Your task to perform on an android device: set default search engine in the chrome app Image 0: 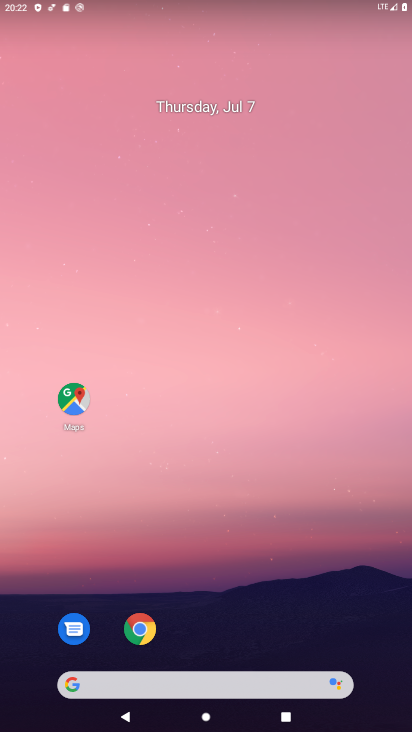
Step 0: drag from (191, 494) to (228, 1)
Your task to perform on an android device: set default search engine in the chrome app Image 1: 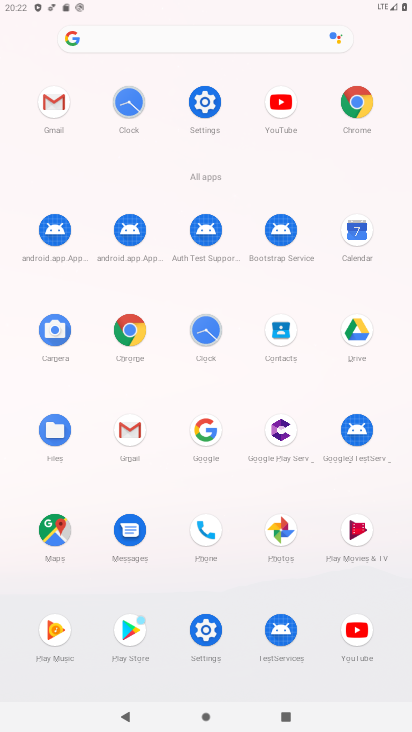
Step 1: click (129, 326)
Your task to perform on an android device: set default search engine in the chrome app Image 2: 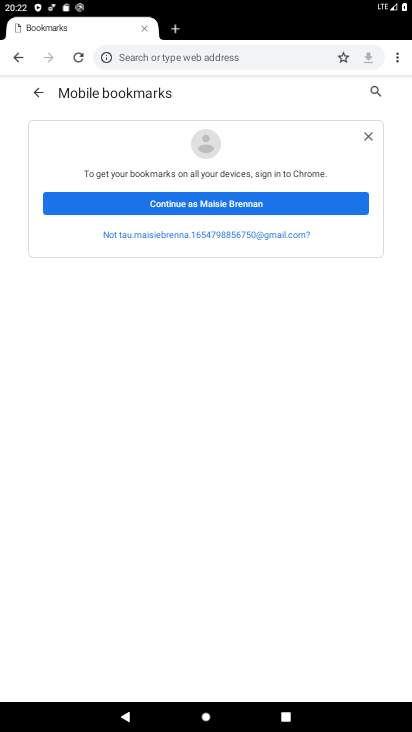
Step 2: drag from (398, 57) to (301, 266)
Your task to perform on an android device: set default search engine in the chrome app Image 3: 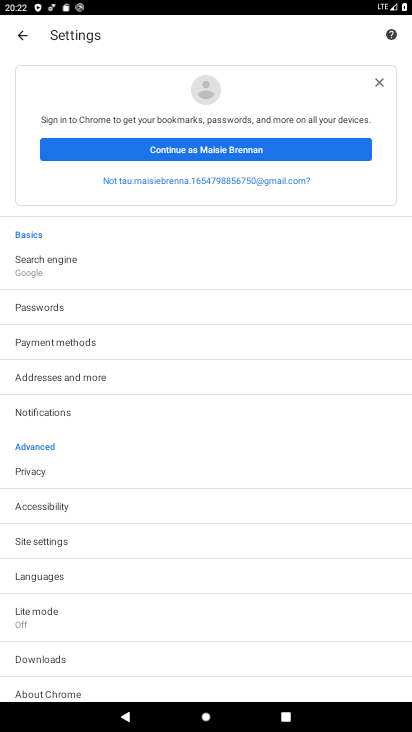
Step 3: click (70, 276)
Your task to perform on an android device: set default search engine in the chrome app Image 4: 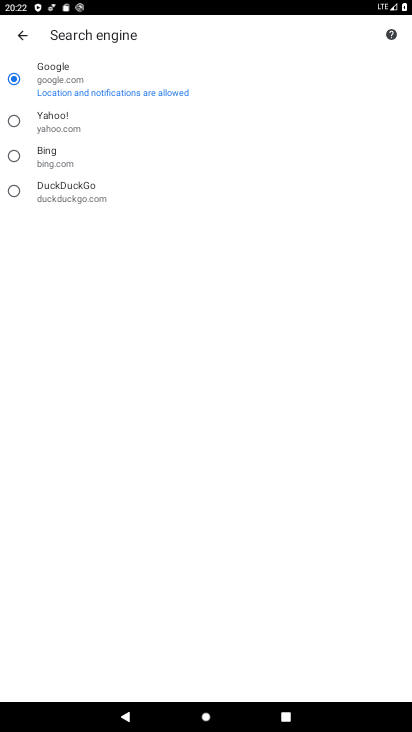
Step 4: task complete